Your task to perform on an android device: Open the Play Movies app and select the watchlist tab. Image 0: 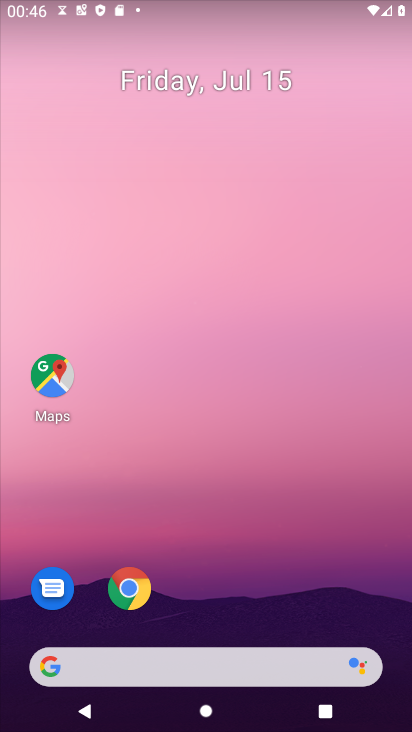
Step 0: drag from (207, 597) to (347, 25)
Your task to perform on an android device: Open the Play Movies app and select the watchlist tab. Image 1: 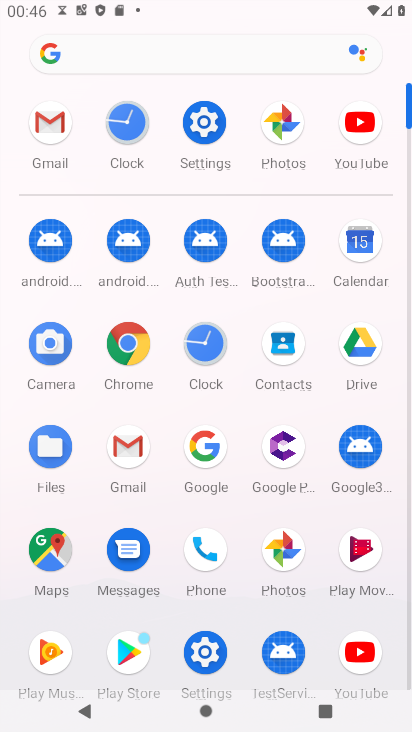
Step 1: drag from (262, 577) to (293, 369)
Your task to perform on an android device: Open the Play Movies app and select the watchlist tab. Image 2: 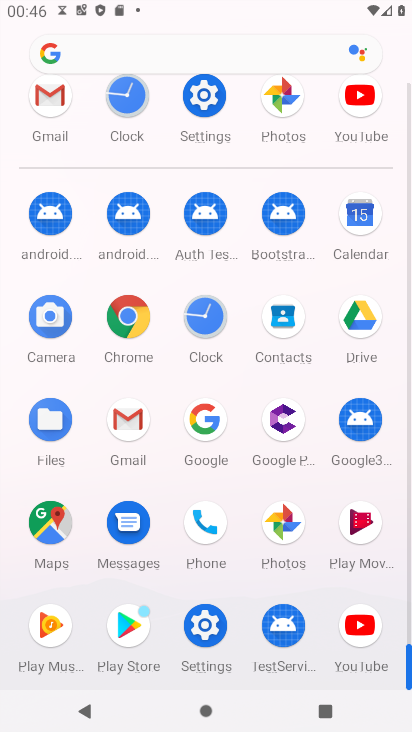
Step 2: click (354, 531)
Your task to perform on an android device: Open the Play Movies app and select the watchlist tab. Image 3: 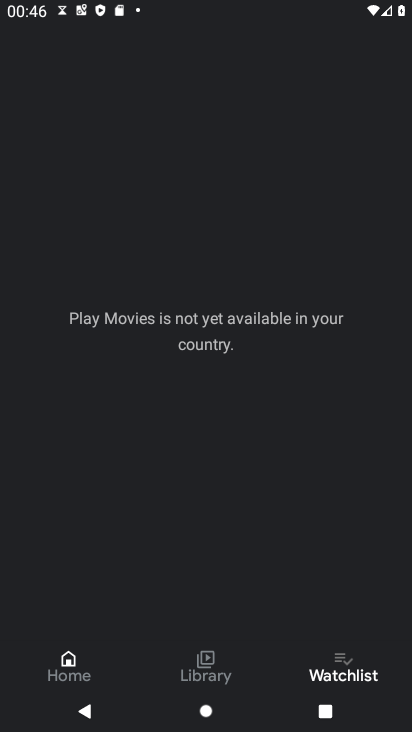
Step 3: click (358, 675)
Your task to perform on an android device: Open the Play Movies app and select the watchlist tab. Image 4: 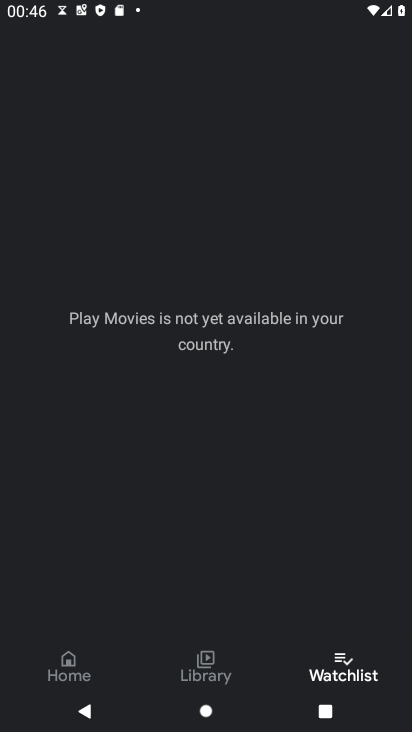
Step 4: task complete